Your task to perform on an android device: delete location history Image 0: 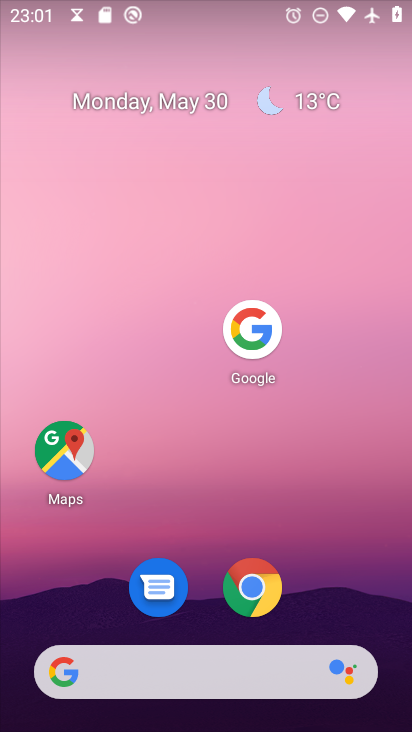
Step 0: click (59, 458)
Your task to perform on an android device: delete location history Image 1: 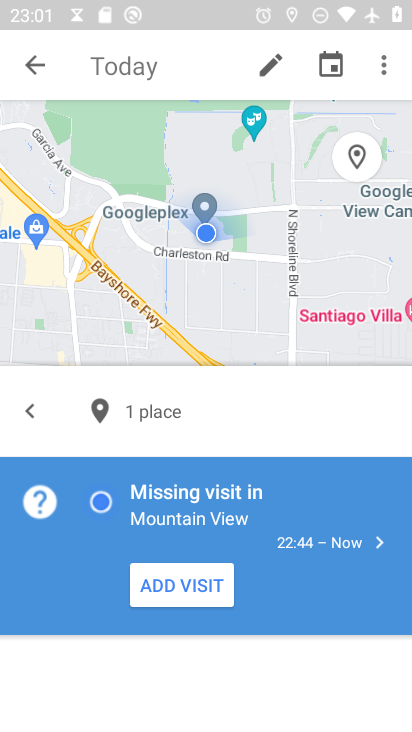
Step 1: click (388, 72)
Your task to perform on an android device: delete location history Image 2: 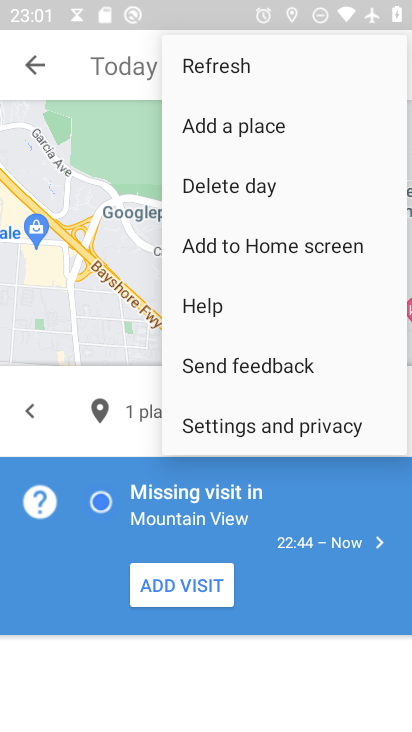
Step 2: click (249, 422)
Your task to perform on an android device: delete location history Image 3: 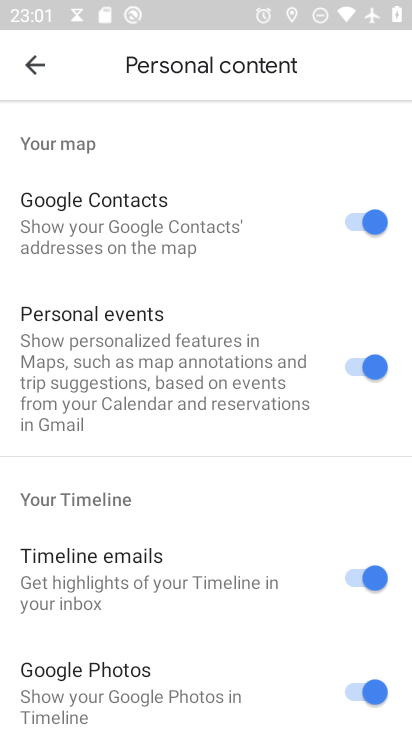
Step 3: drag from (195, 592) to (264, 174)
Your task to perform on an android device: delete location history Image 4: 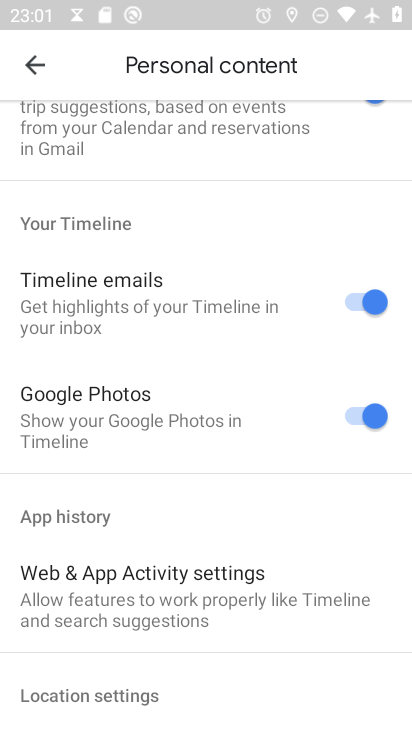
Step 4: drag from (178, 640) to (262, 146)
Your task to perform on an android device: delete location history Image 5: 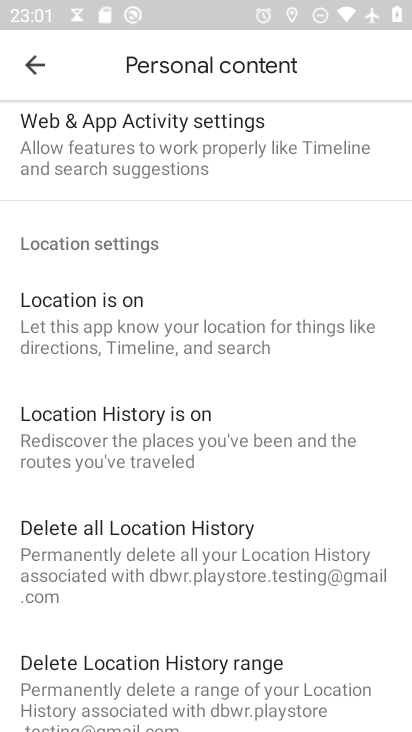
Step 5: click (221, 549)
Your task to perform on an android device: delete location history Image 6: 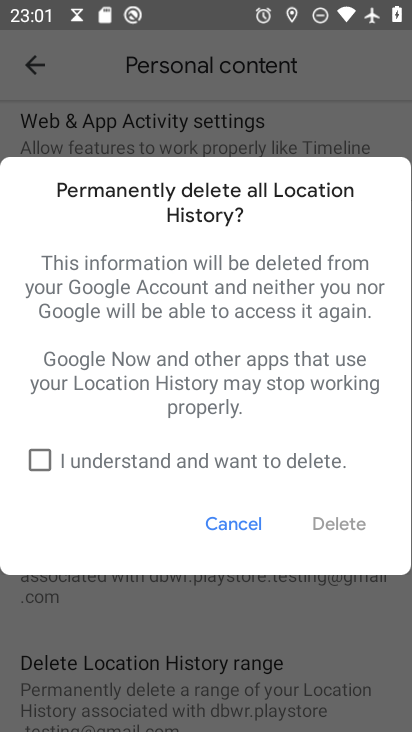
Step 6: click (40, 457)
Your task to perform on an android device: delete location history Image 7: 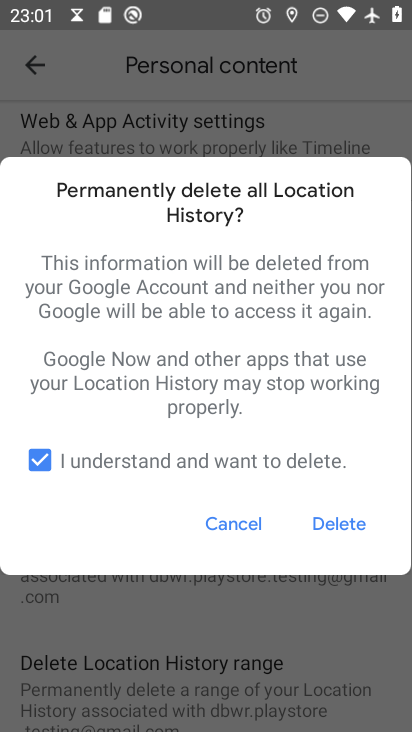
Step 7: click (338, 524)
Your task to perform on an android device: delete location history Image 8: 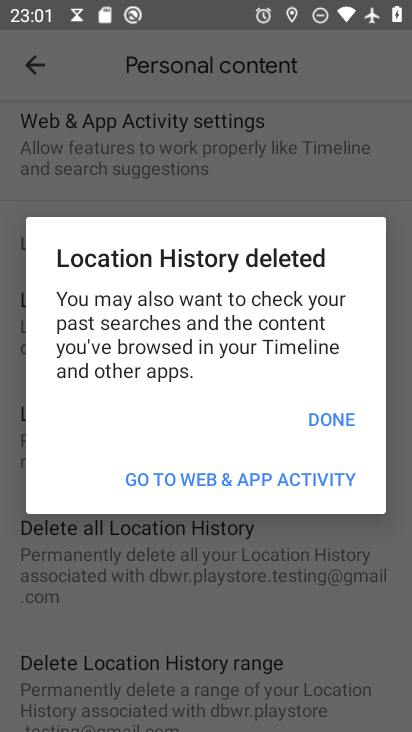
Step 8: click (340, 415)
Your task to perform on an android device: delete location history Image 9: 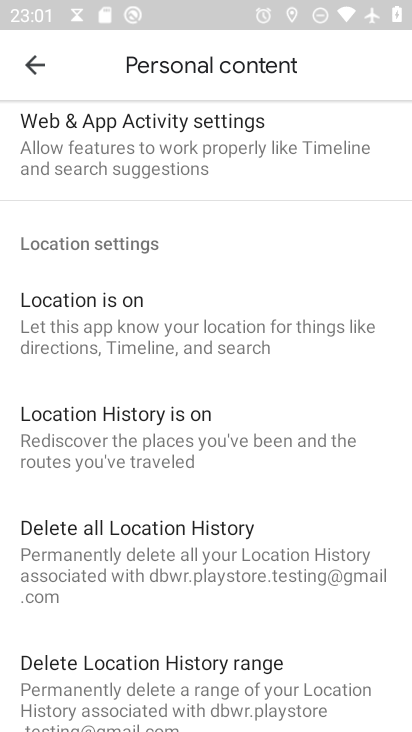
Step 9: task complete